Your task to perform on an android device: Go to ESPN.com Image 0: 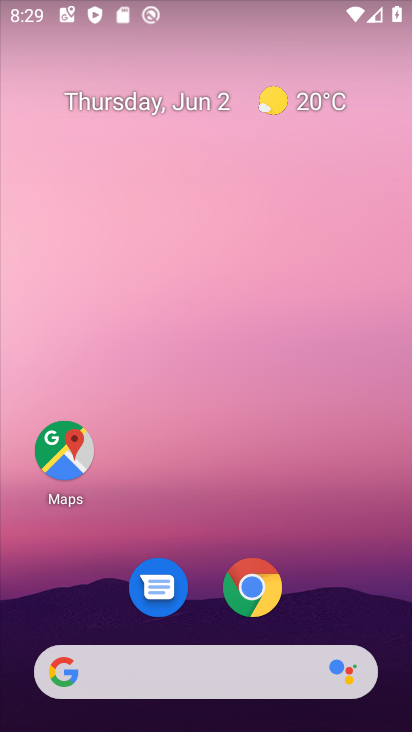
Step 0: click (167, 669)
Your task to perform on an android device: Go to ESPN.com Image 1: 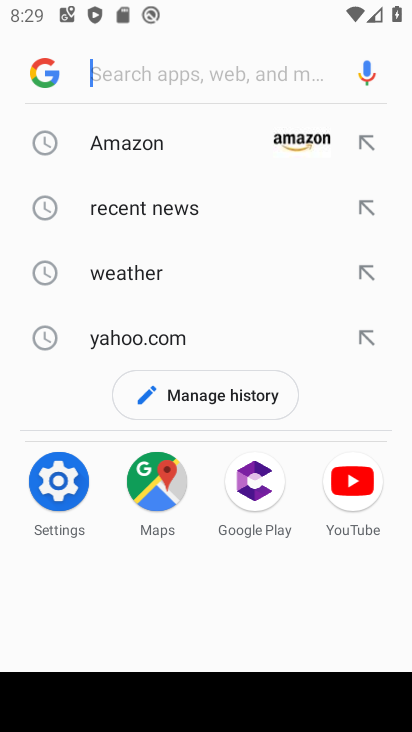
Step 1: type "espn"
Your task to perform on an android device: Go to ESPN.com Image 2: 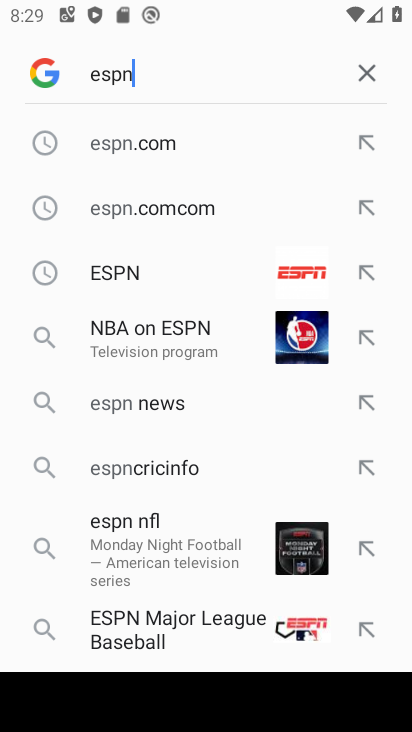
Step 2: click (203, 289)
Your task to perform on an android device: Go to ESPN.com Image 3: 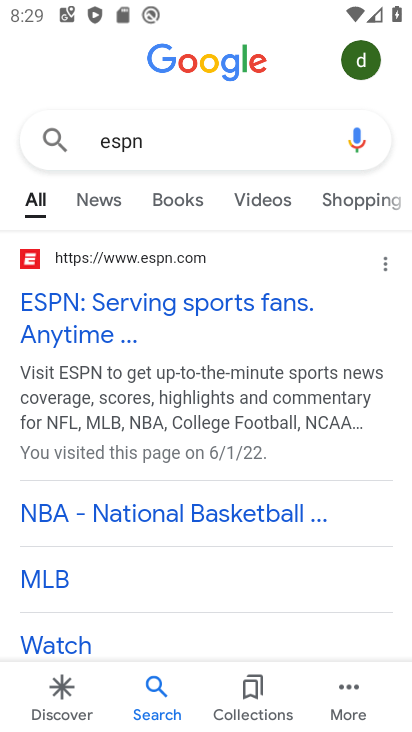
Step 3: click (198, 304)
Your task to perform on an android device: Go to ESPN.com Image 4: 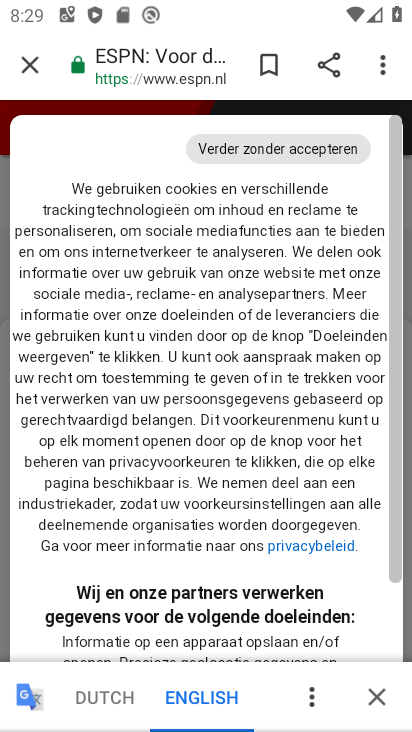
Step 4: task complete